Your task to perform on an android device: Go to calendar. Show me events next week Image 0: 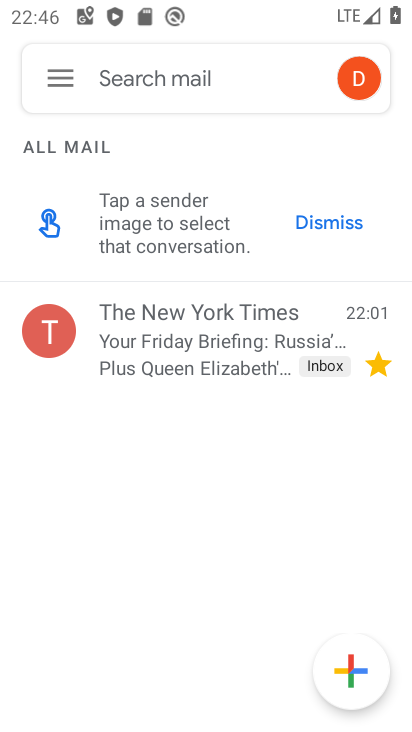
Step 0: press home button
Your task to perform on an android device: Go to calendar. Show me events next week Image 1: 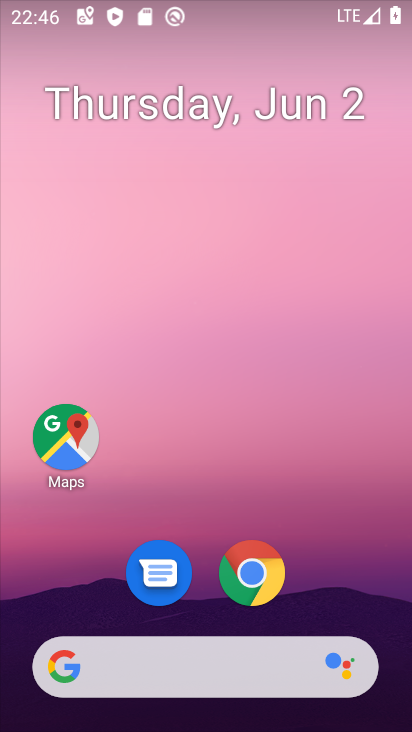
Step 1: click (207, 119)
Your task to perform on an android device: Go to calendar. Show me events next week Image 2: 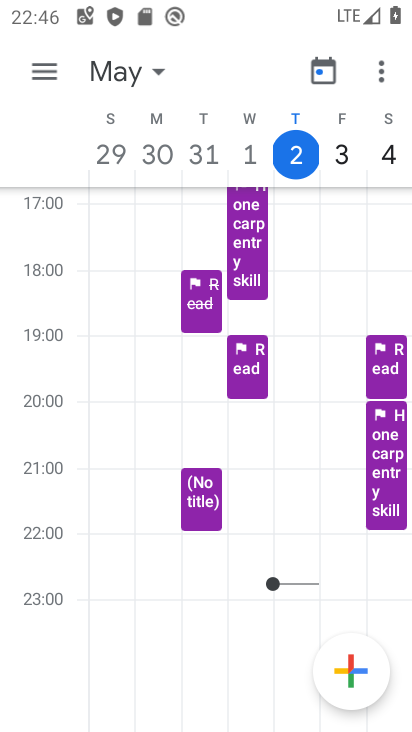
Step 2: task complete